Your task to perform on an android device: Add corsair k70 to the cart on bestbuy.com Image 0: 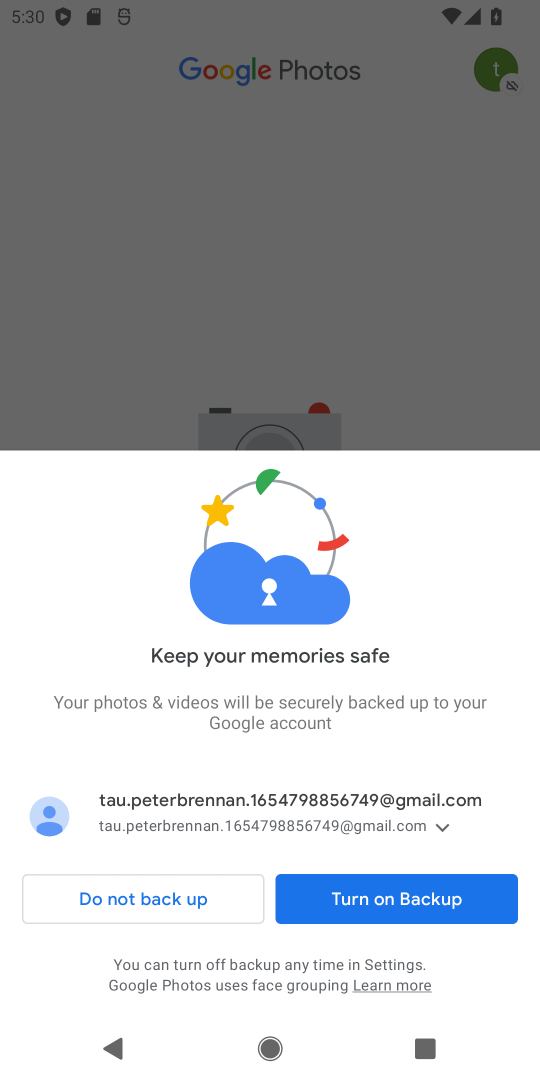
Step 0: press home button
Your task to perform on an android device: Add corsair k70 to the cart on bestbuy.com Image 1: 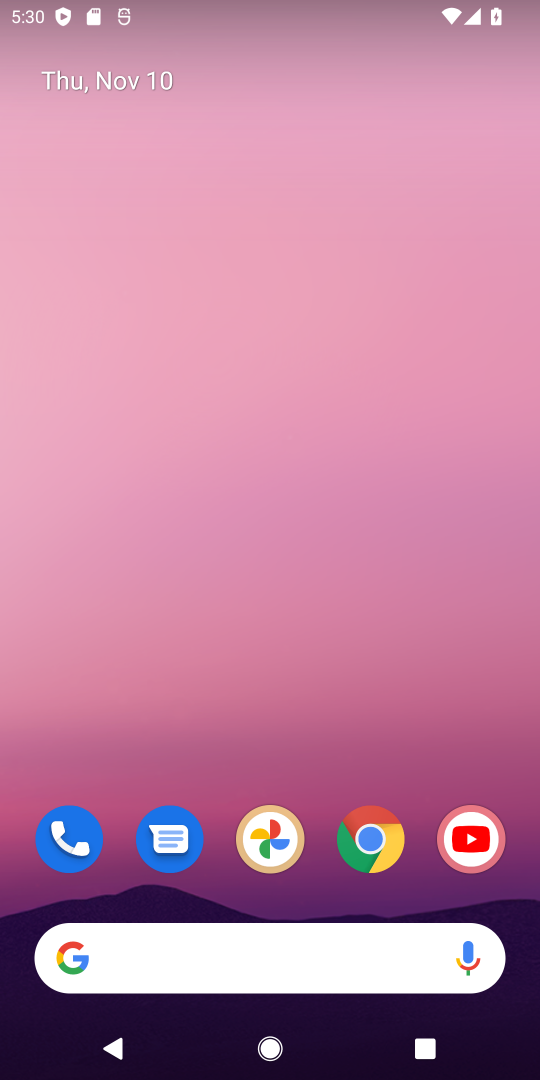
Step 1: click (361, 861)
Your task to perform on an android device: Add corsair k70 to the cart on bestbuy.com Image 2: 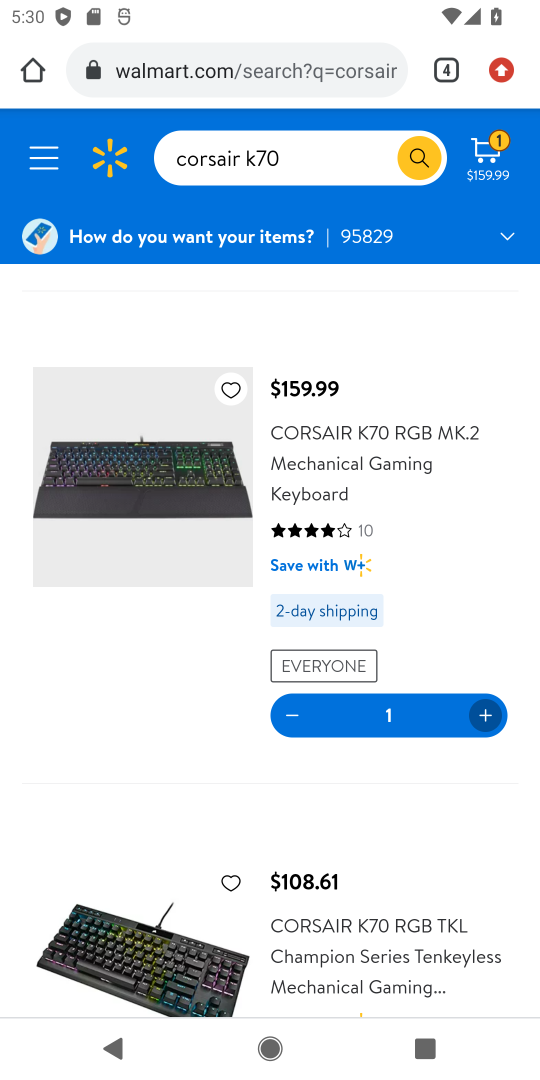
Step 2: click (442, 64)
Your task to perform on an android device: Add corsair k70 to the cart on bestbuy.com Image 3: 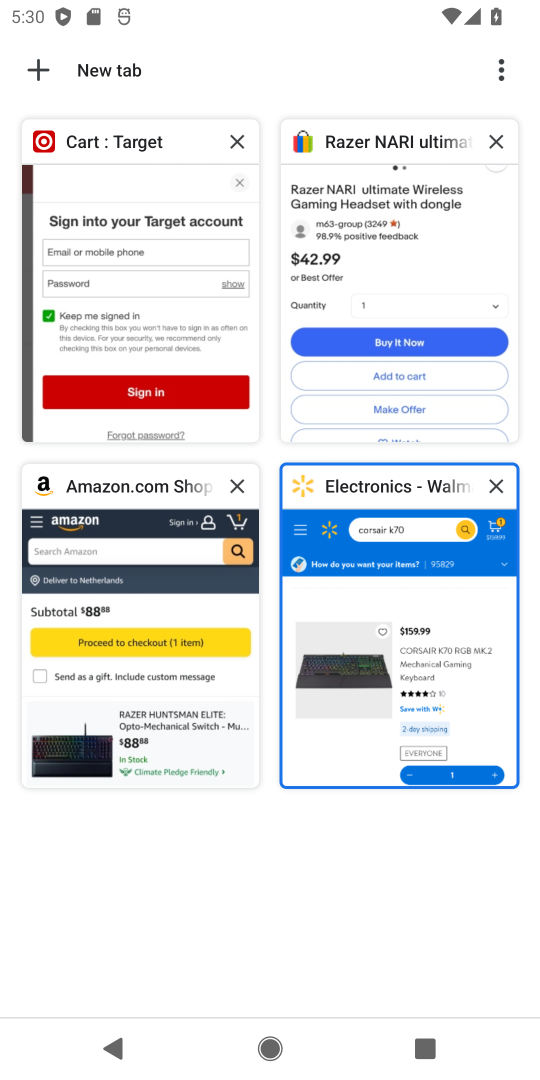
Step 3: click (40, 60)
Your task to perform on an android device: Add corsair k70 to the cart on bestbuy.com Image 4: 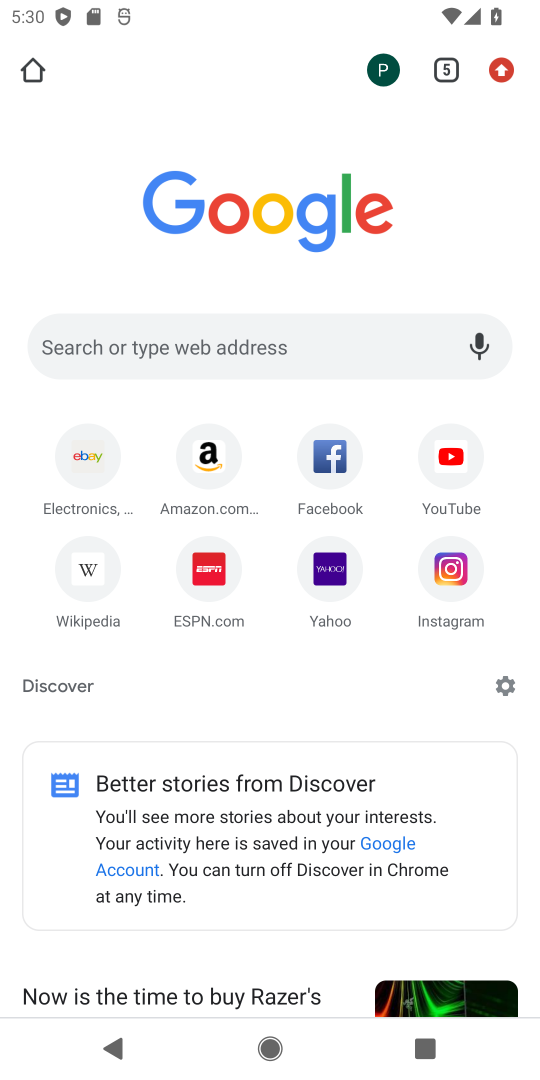
Step 4: click (197, 349)
Your task to perform on an android device: Add corsair k70 to the cart on bestbuy.com Image 5: 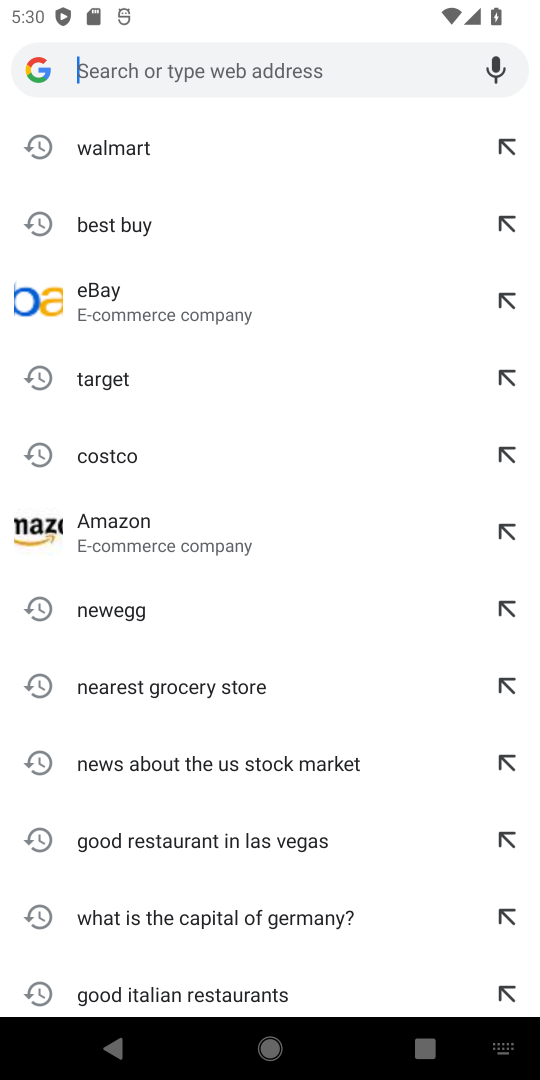
Step 5: click (102, 218)
Your task to perform on an android device: Add corsair k70 to the cart on bestbuy.com Image 6: 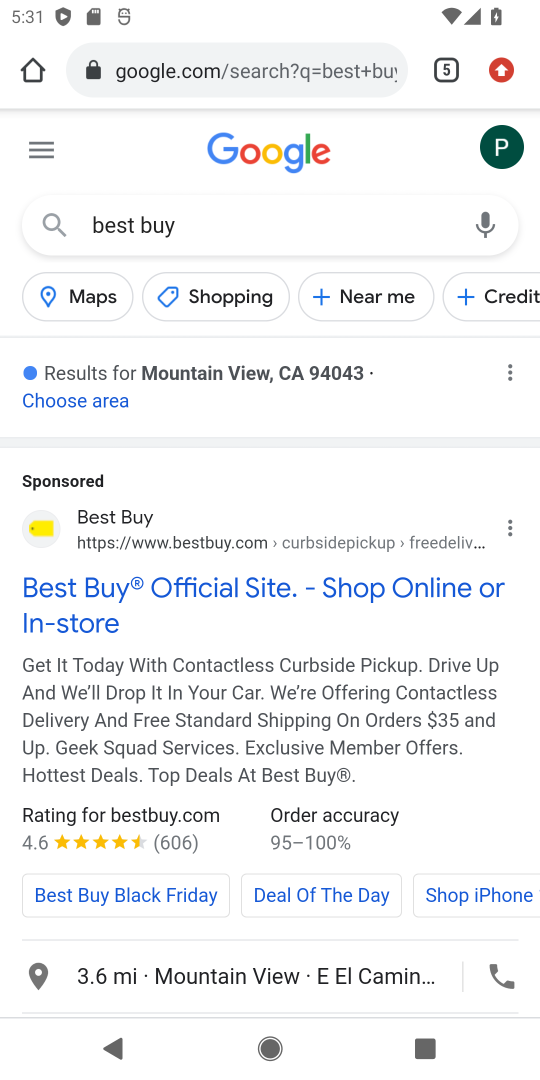
Step 6: click (178, 579)
Your task to perform on an android device: Add corsair k70 to the cart on bestbuy.com Image 7: 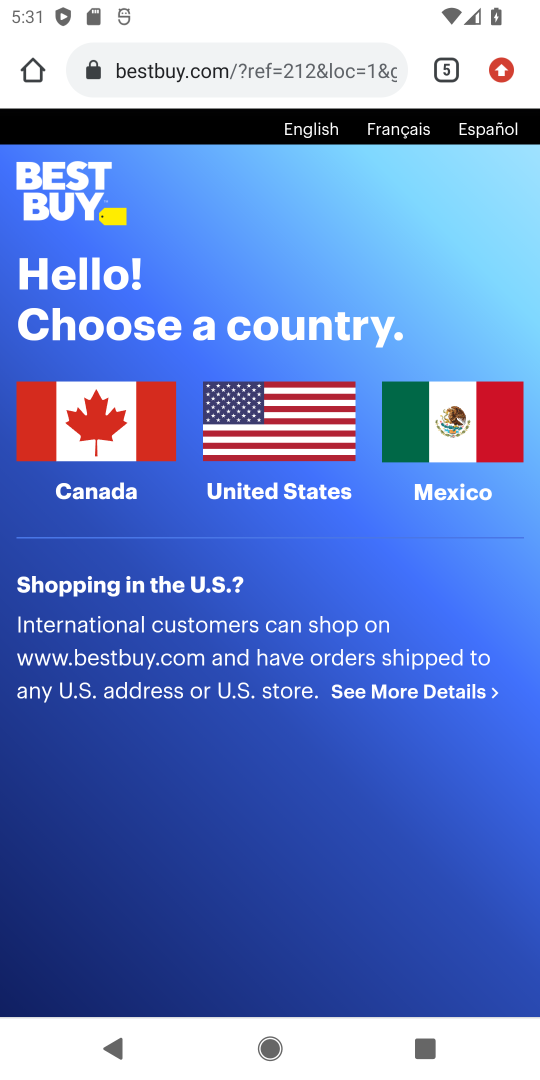
Step 7: click (265, 415)
Your task to perform on an android device: Add corsair k70 to the cart on bestbuy.com Image 8: 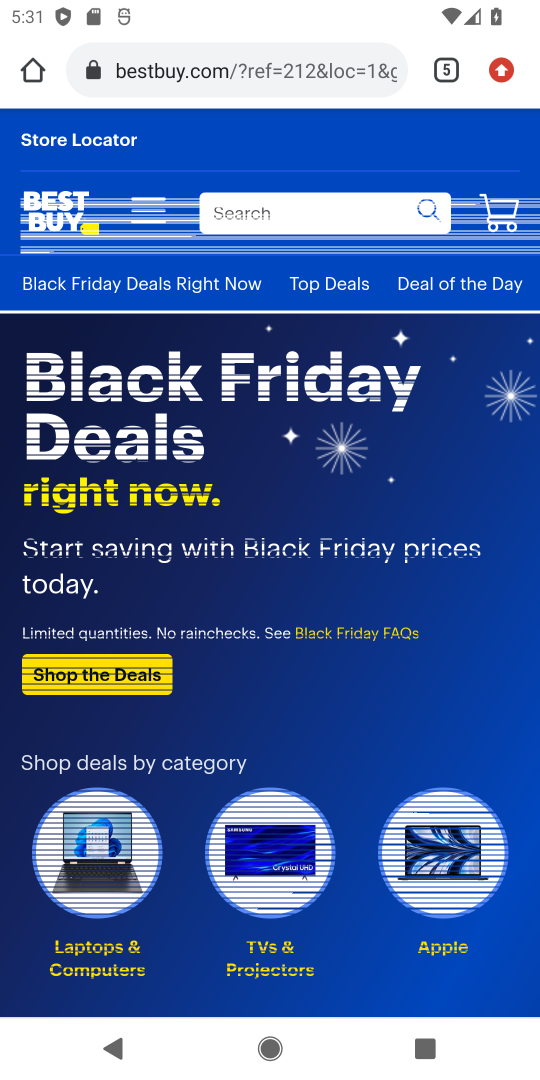
Step 8: click (263, 212)
Your task to perform on an android device: Add corsair k70 to the cart on bestbuy.com Image 9: 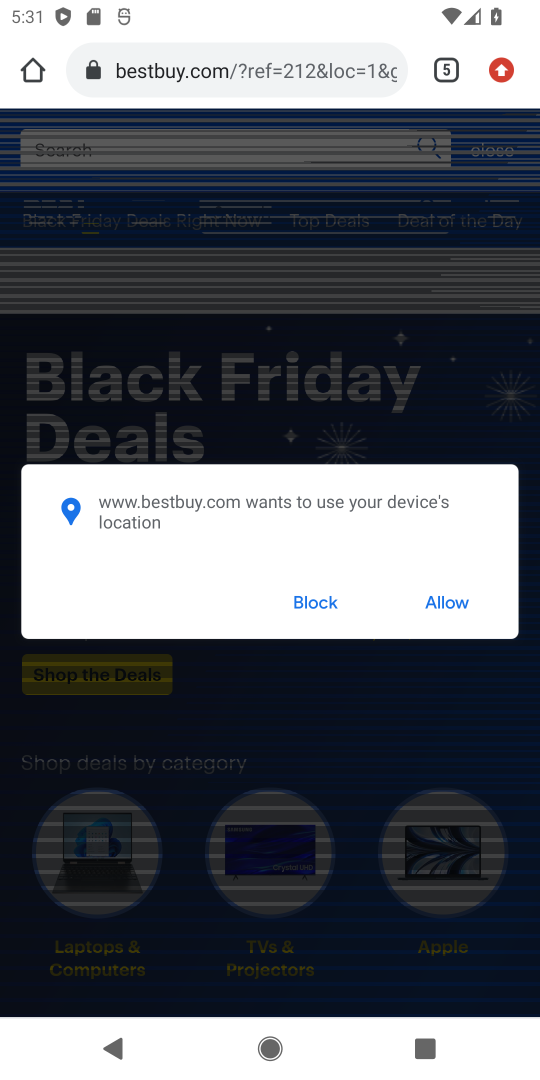
Step 9: type "corsair k70"
Your task to perform on an android device: Add corsair k70 to the cart on bestbuy.com Image 10: 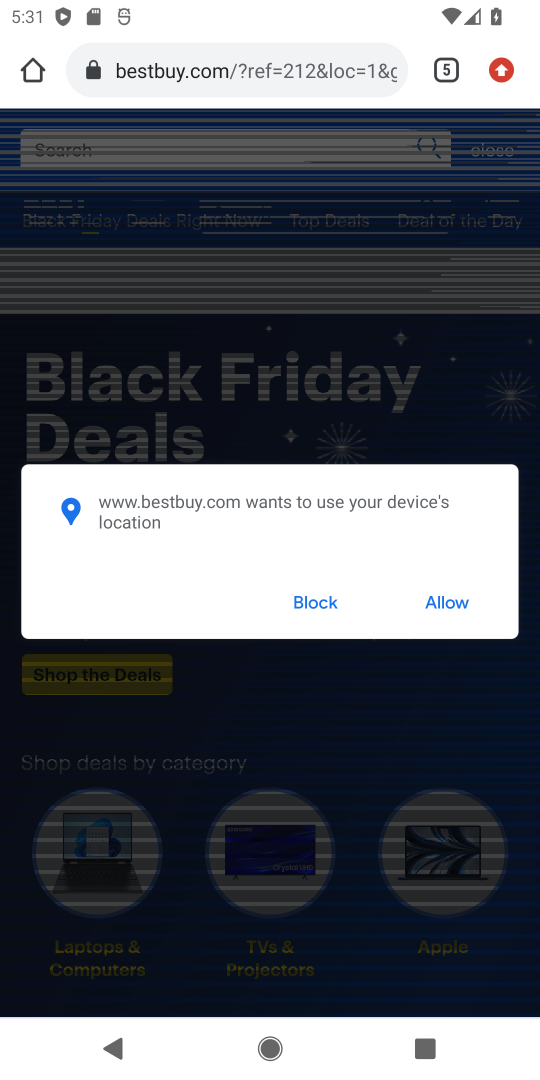
Step 10: click (303, 587)
Your task to perform on an android device: Add corsair k70 to the cart on bestbuy.com Image 11: 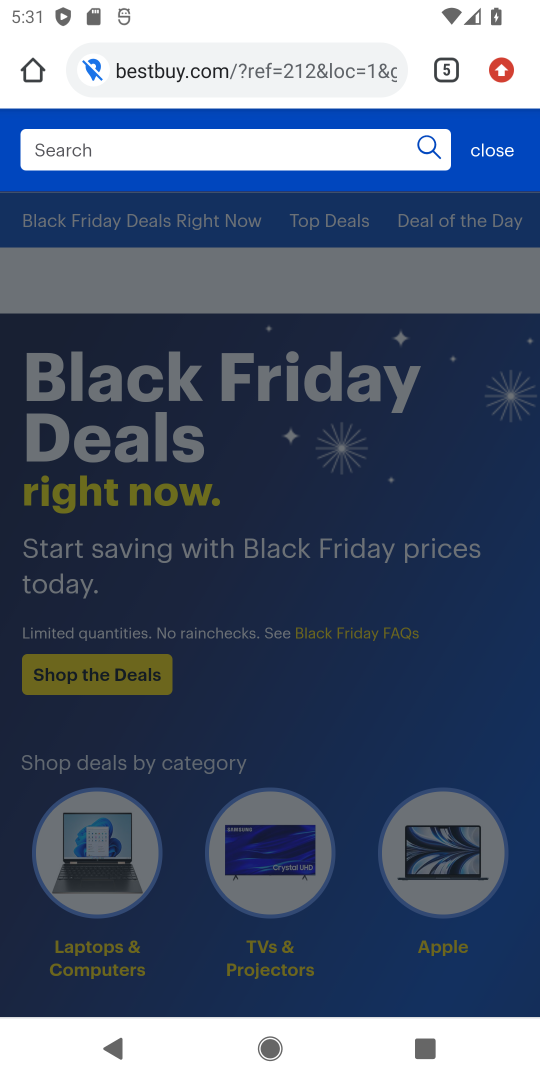
Step 11: click (203, 166)
Your task to perform on an android device: Add corsair k70 to the cart on bestbuy.com Image 12: 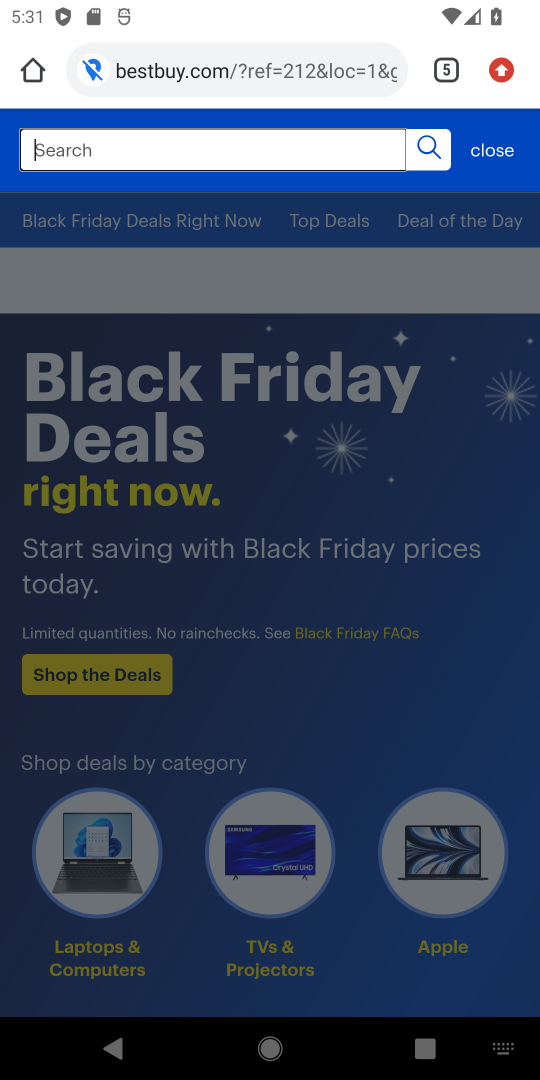
Step 12: type "corsair k70"
Your task to perform on an android device: Add corsair k70 to the cart on bestbuy.com Image 13: 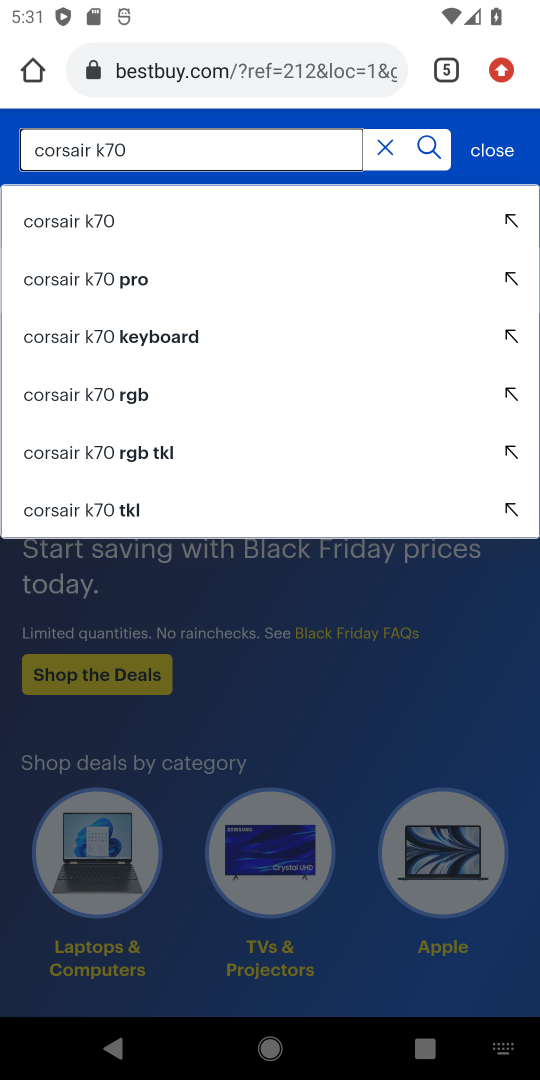
Step 13: click (94, 224)
Your task to perform on an android device: Add corsair k70 to the cart on bestbuy.com Image 14: 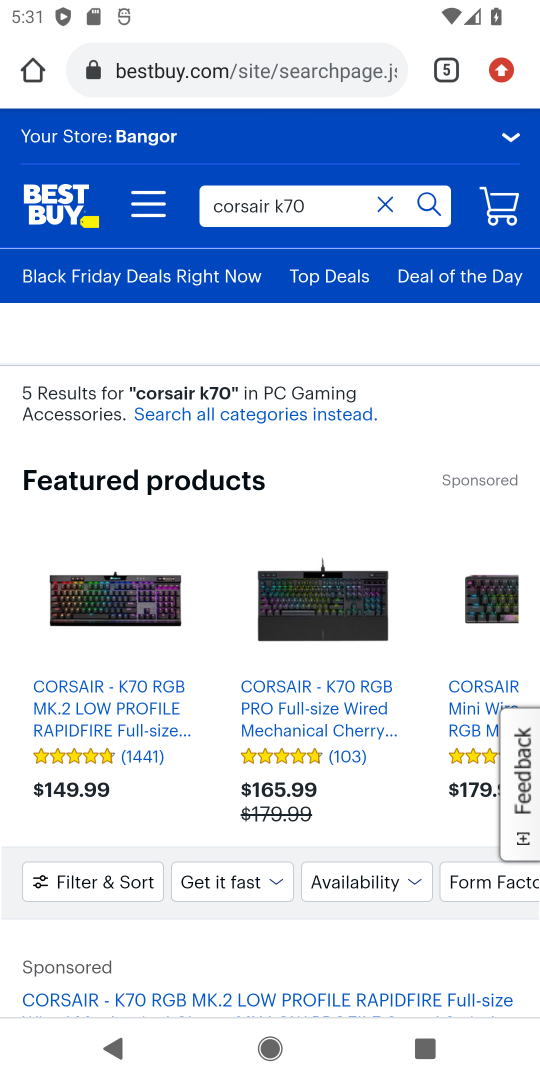
Step 14: drag from (178, 842) to (342, 239)
Your task to perform on an android device: Add corsair k70 to the cart on bestbuy.com Image 15: 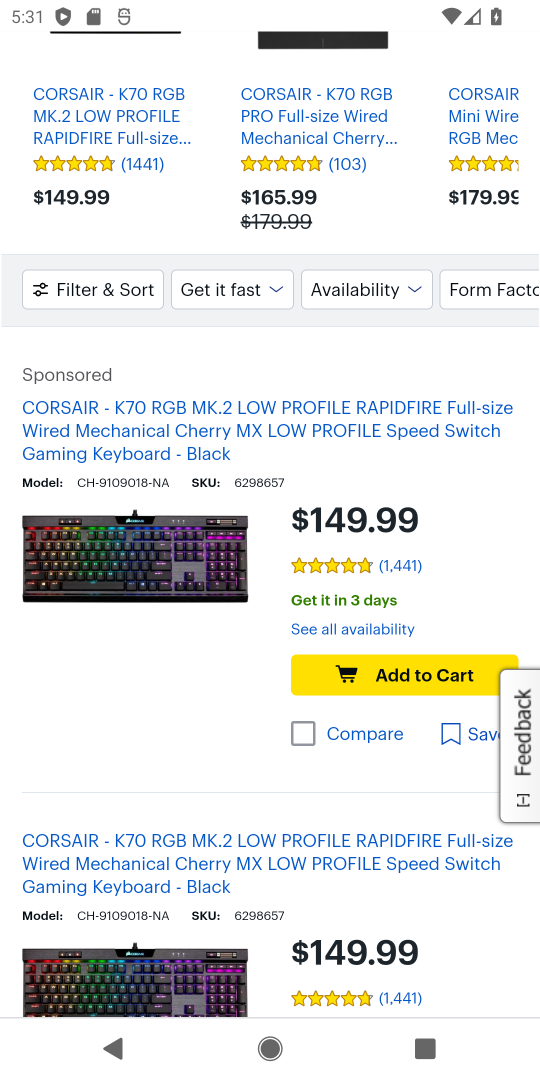
Step 15: click (416, 672)
Your task to perform on an android device: Add corsair k70 to the cart on bestbuy.com Image 16: 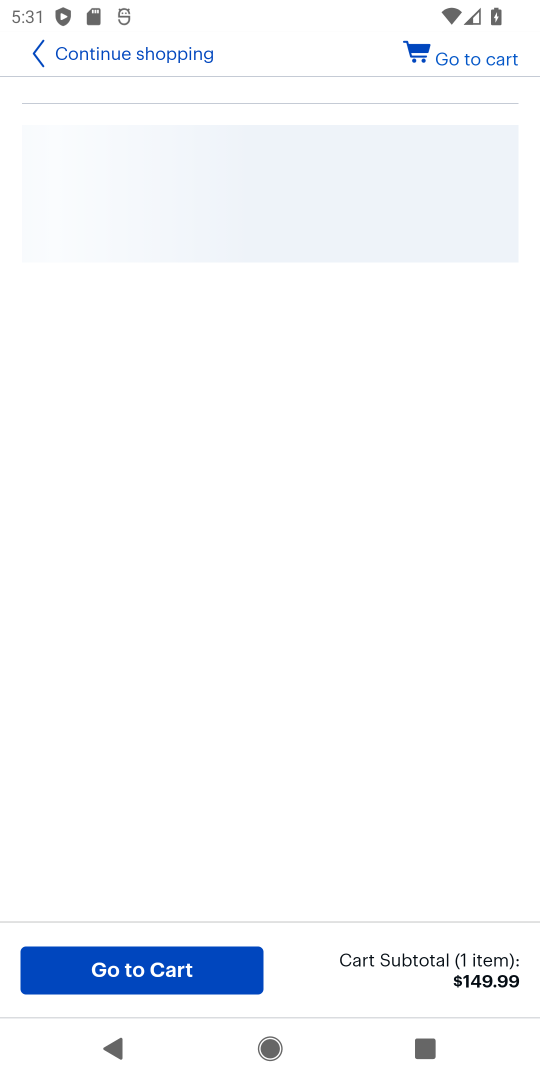
Step 16: task complete